Your task to perform on an android device: Open battery settings Image 0: 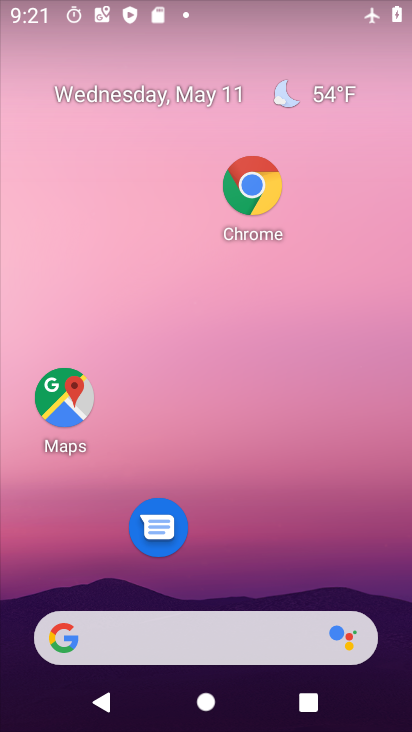
Step 0: drag from (278, 534) to (267, 76)
Your task to perform on an android device: Open battery settings Image 1: 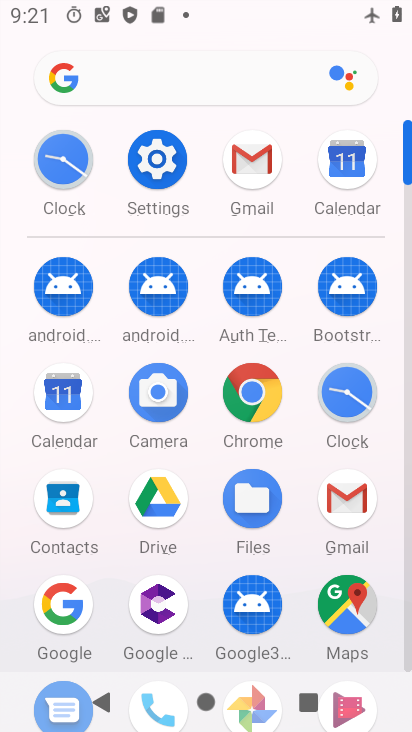
Step 1: click (163, 147)
Your task to perform on an android device: Open battery settings Image 2: 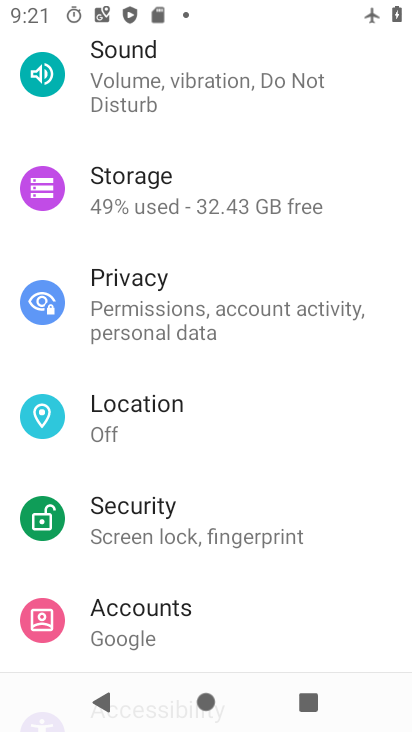
Step 2: drag from (202, 141) to (251, 523)
Your task to perform on an android device: Open battery settings Image 3: 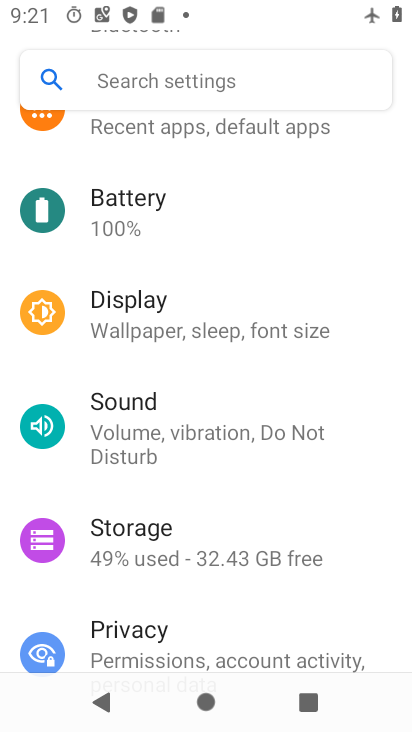
Step 3: click (195, 213)
Your task to perform on an android device: Open battery settings Image 4: 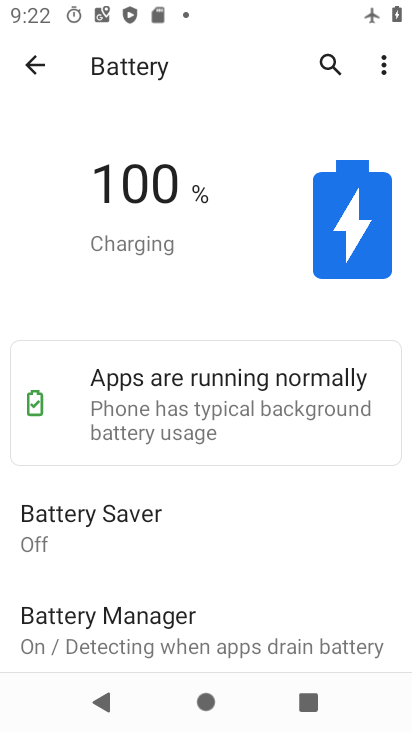
Step 4: task complete